Your task to perform on an android device: turn off notifications settings in the gmail app Image 0: 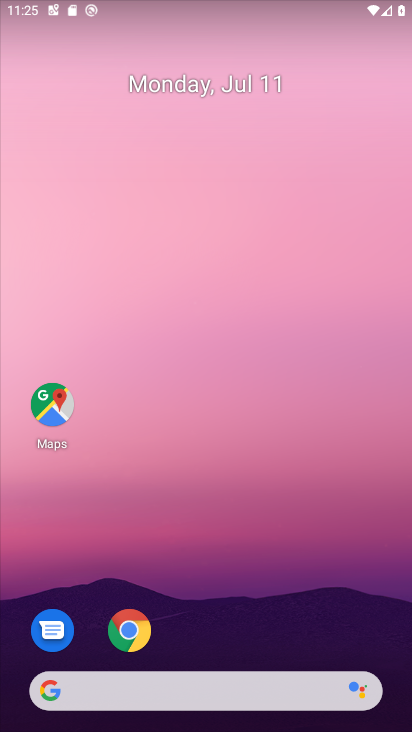
Step 0: drag from (303, 664) to (339, 21)
Your task to perform on an android device: turn off notifications settings in the gmail app Image 1: 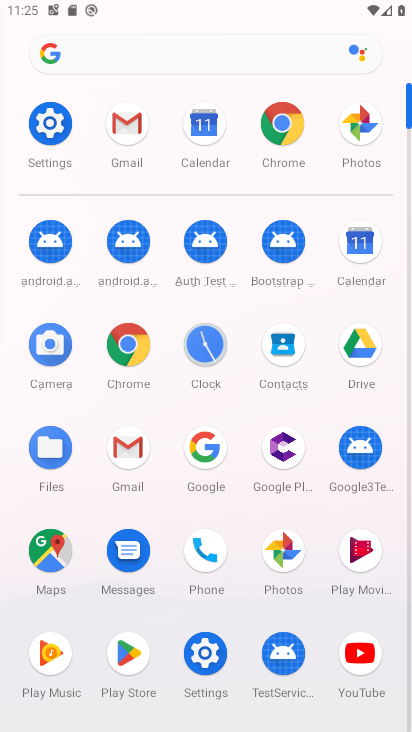
Step 1: click (130, 454)
Your task to perform on an android device: turn off notifications settings in the gmail app Image 2: 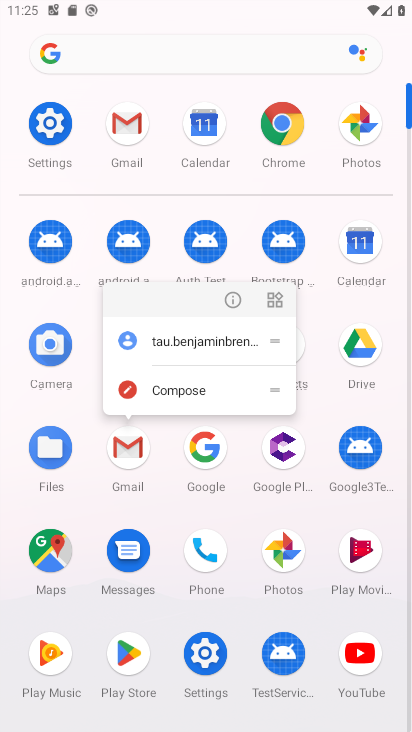
Step 2: click (132, 454)
Your task to perform on an android device: turn off notifications settings in the gmail app Image 3: 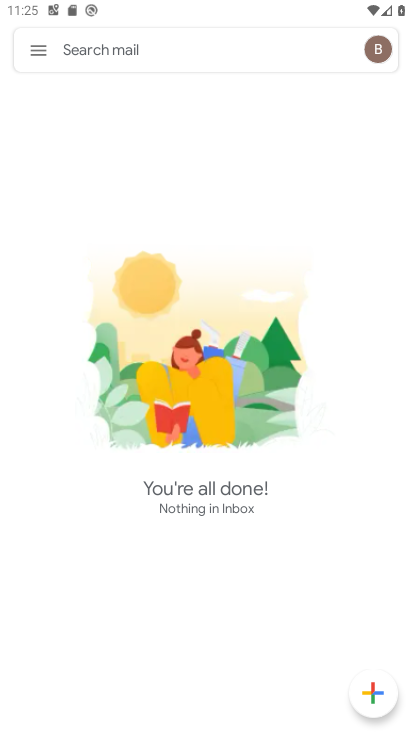
Step 3: click (34, 49)
Your task to perform on an android device: turn off notifications settings in the gmail app Image 4: 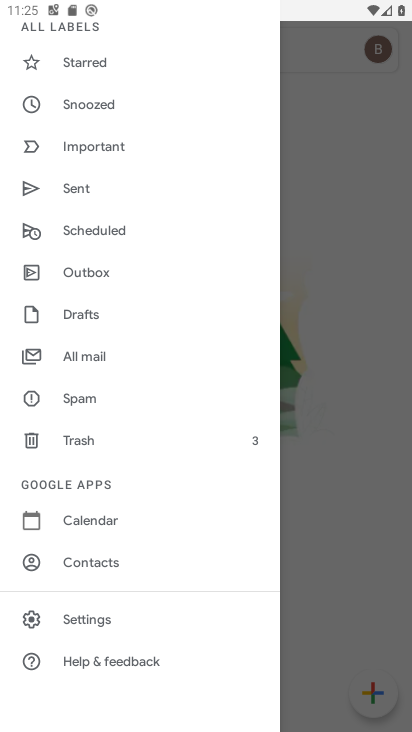
Step 4: click (88, 619)
Your task to perform on an android device: turn off notifications settings in the gmail app Image 5: 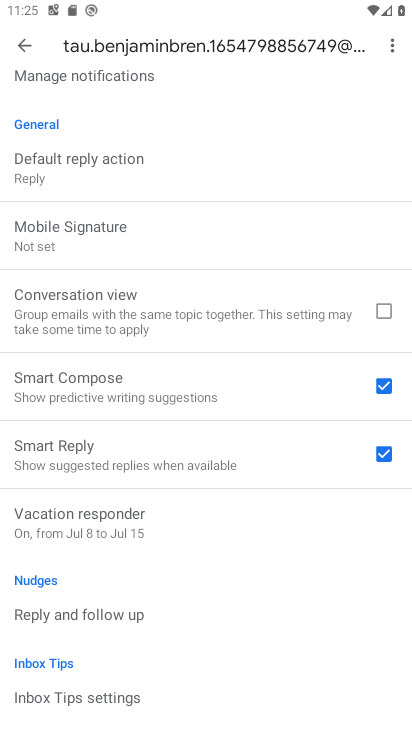
Step 5: click (18, 41)
Your task to perform on an android device: turn off notifications settings in the gmail app Image 6: 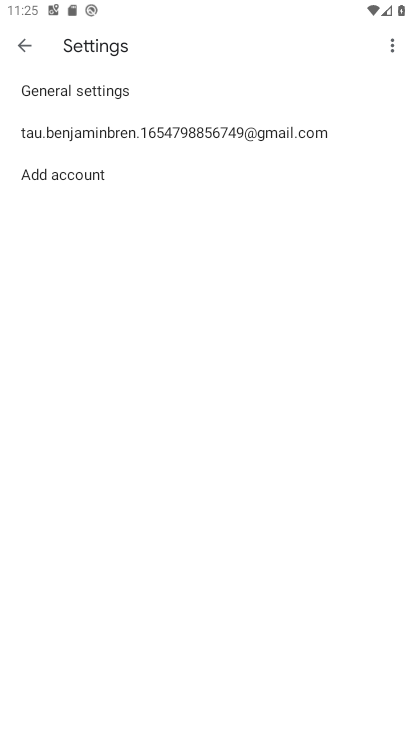
Step 6: click (108, 82)
Your task to perform on an android device: turn off notifications settings in the gmail app Image 7: 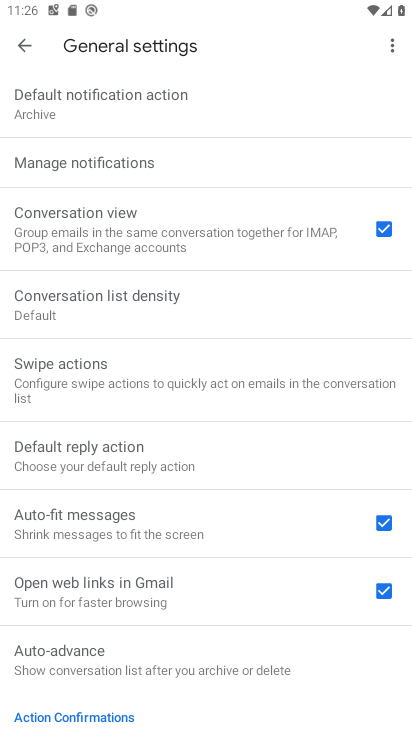
Step 7: click (103, 158)
Your task to perform on an android device: turn off notifications settings in the gmail app Image 8: 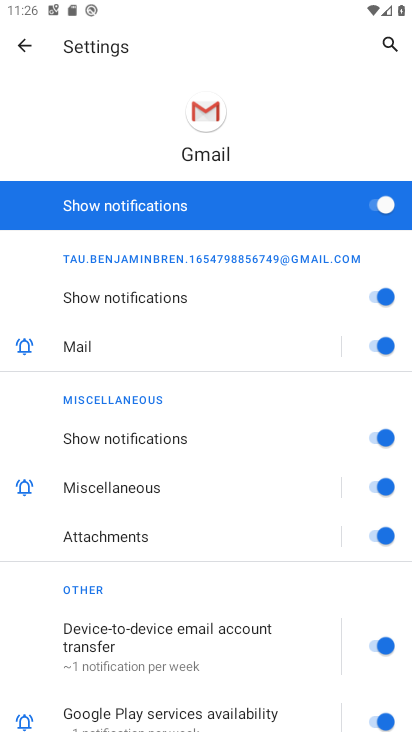
Step 8: click (368, 198)
Your task to perform on an android device: turn off notifications settings in the gmail app Image 9: 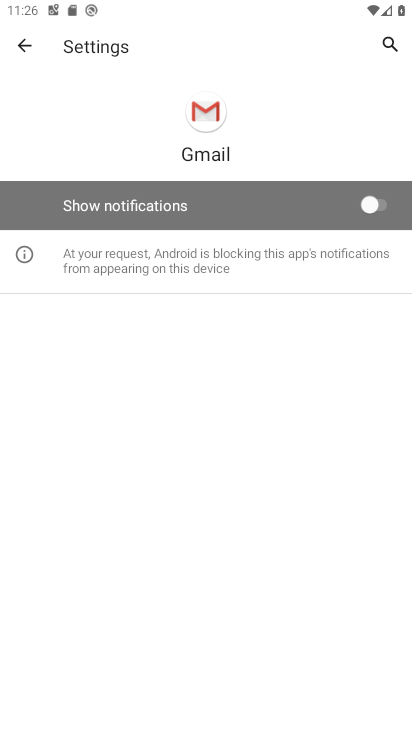
Step 9: task complete